Your task to perform on an android device: Go to display settings Image 0: 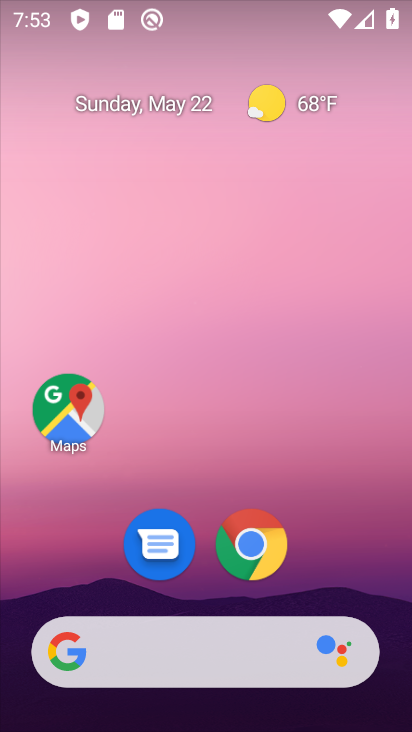
Step 0: click (406, 297)
Your task to perform on an android device: Go to display settings Image 1: 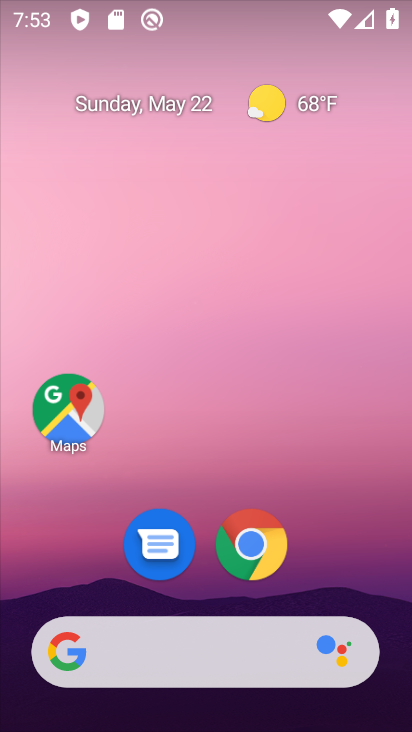
Step 1: drag from (397, 676) to (377, 154)
Your task to perform on an android device: Go to display settings Image 2: 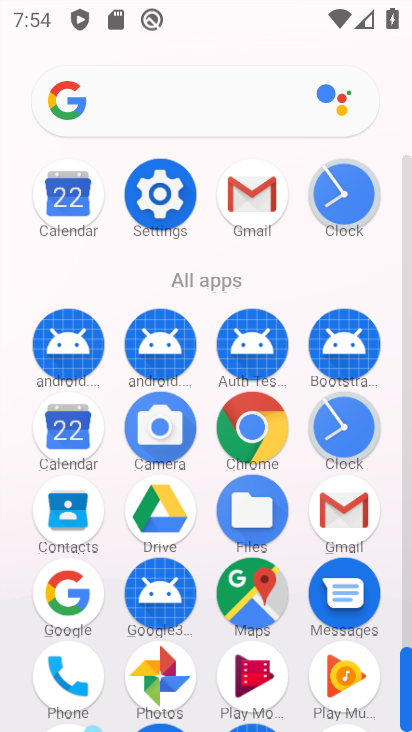
Step 2: click (155, 214)
Your task to perform on an android device: Go to display settings Image 3: 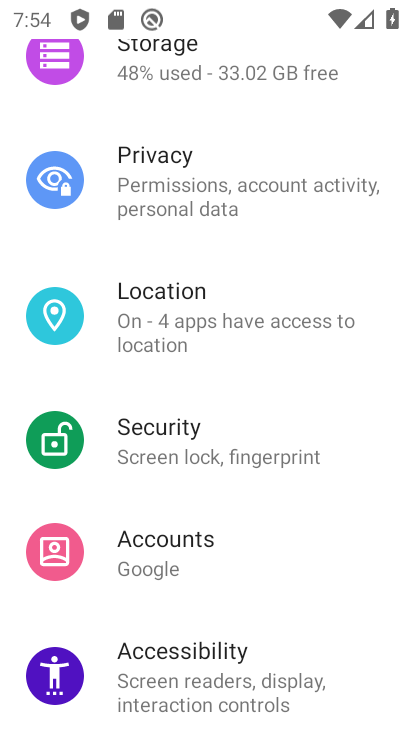
Step 3: drag from (392, 126) to (391, 289)
Your task to perform on an android device: Go to display settings Image 4: 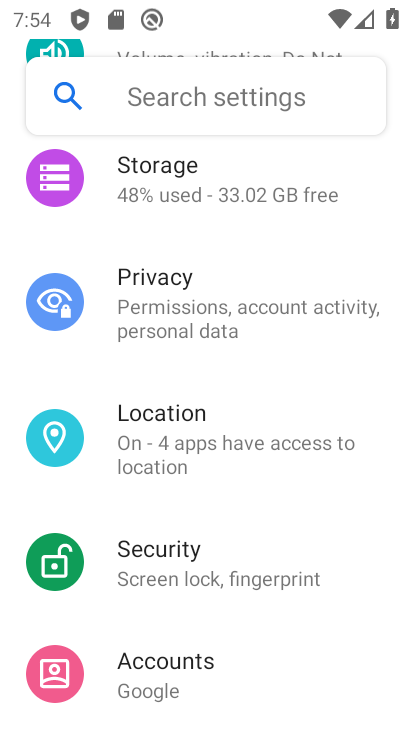
Step 4: drag from (394, 199) to (372, 644)
Your task to perform on an android device: Go to display settings Image 5: 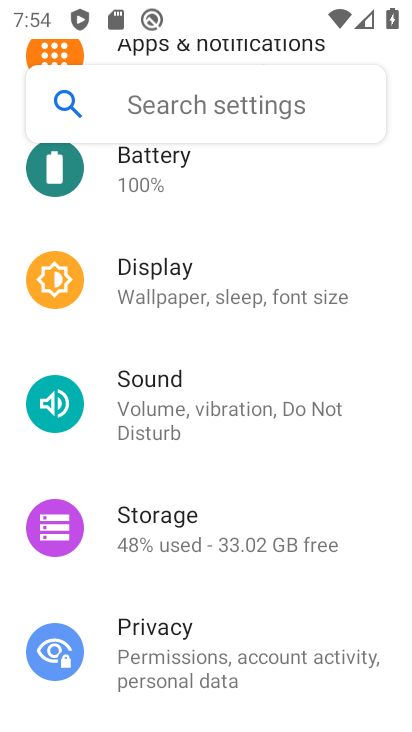
Step 5: click (209, 299)
Your task to perform on an android device: Go to display settings Image 6: 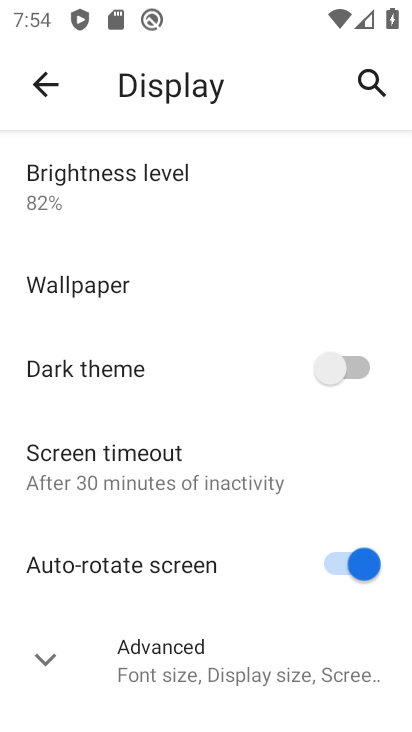
Step 6: task complete